Your task to perform on an android device: turn vacation reply on in the gmail app Image 0: 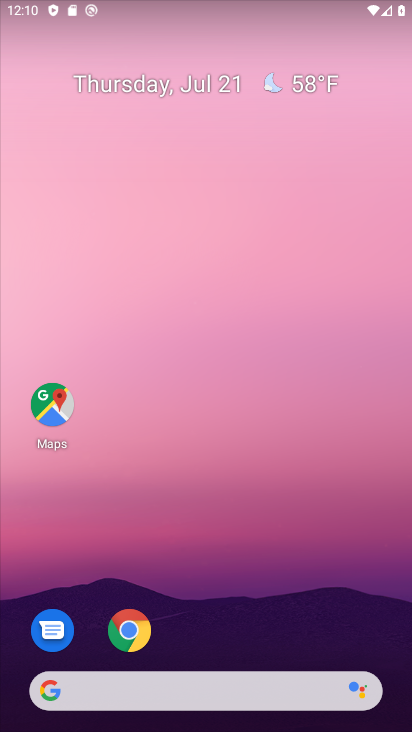
Step 0: drag from (235, 677) to (189, 103)
Your task to perform on an android device: turn vacation reply on in the gmail app Image 1: 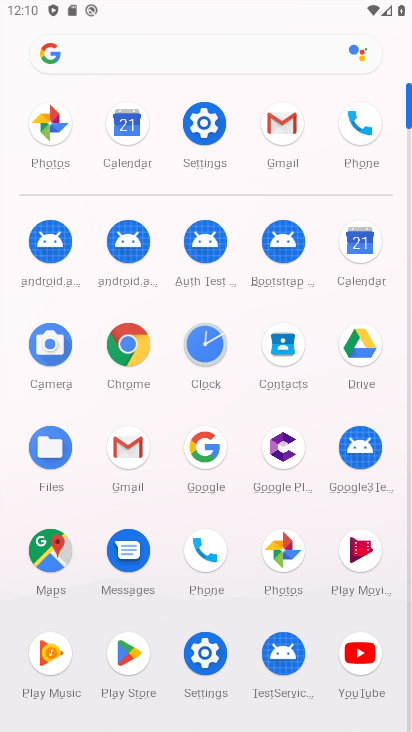
Step 1: click (139, 453)
Your task to perform on an android device: turn vacation reply on in the gmail app Image 2: 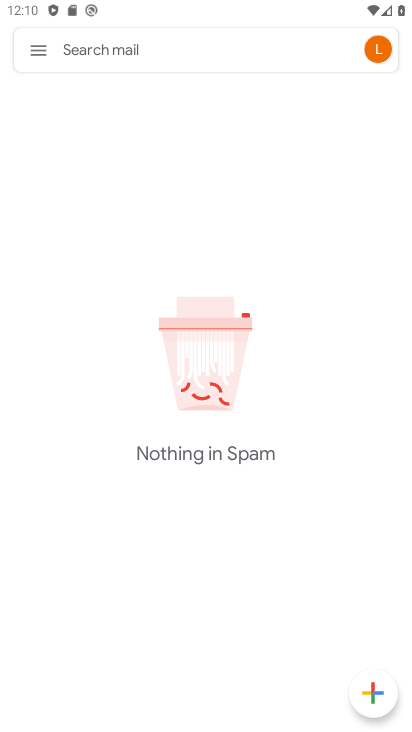
Step 2: click (44, 61)
Your task to perform on an android device: turn vacation reply on in the gmail app Image 3: 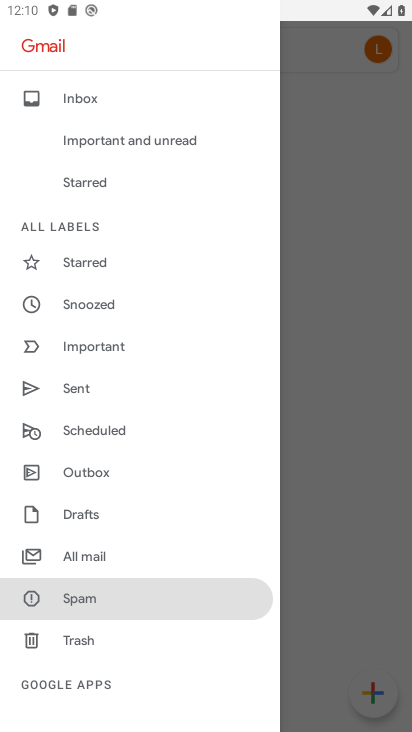
Step 3: drag from (100, 626) to (50, 209)
Your task to perform on an android device: turn vacation reply on in the gmail app Image 4: 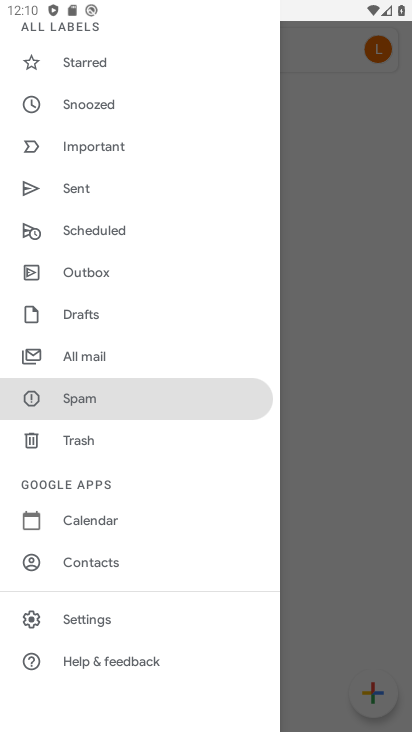
Step 4: click (105, 617)
Your task to perform on an android device: turn vacation reply on in the gmail app Image 5: 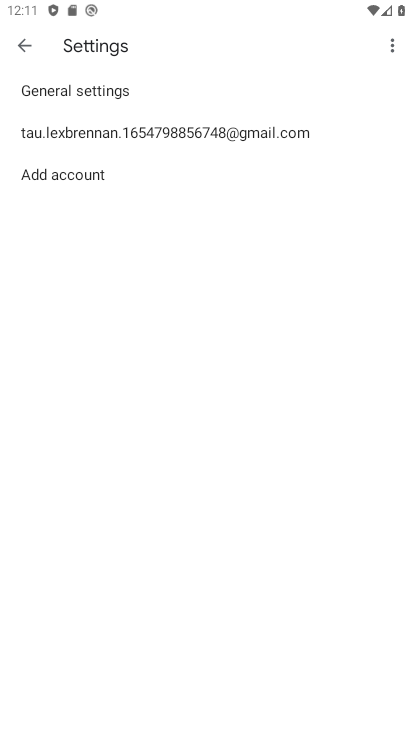
Step 5: click (122, 136)
Your task to perform on an android device: turn vacation reply on in the gmail app Image 6: 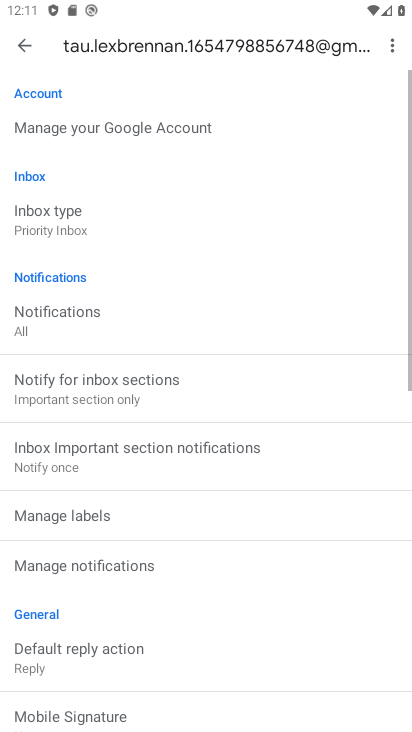
Step 6: drag from (177, 522) to (119, 105)
Your task to perform on an android device: turn vacation reply on in the gmail app Image 7: 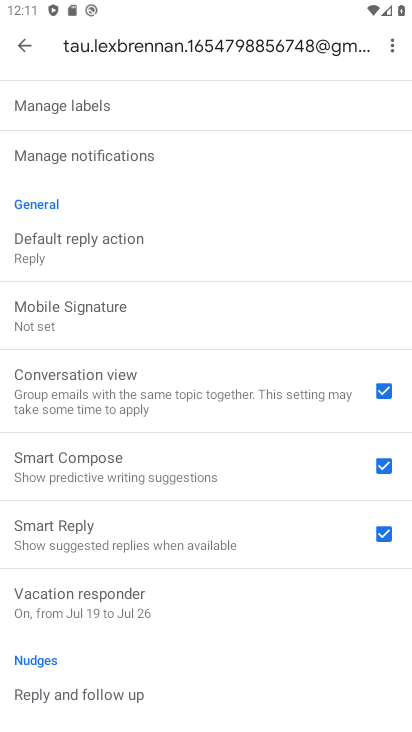
Step 7: click (181, 605)
Your task to perform on an android device: turn vacation reply on in the gmail app Image 8: 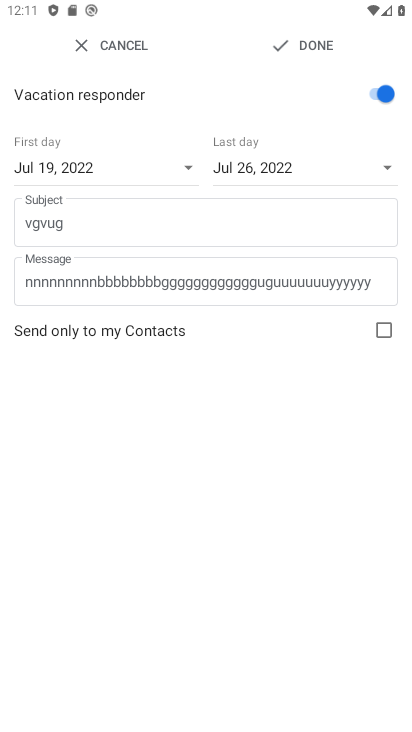
Step 8: task complete